Your task to perform on an android device: change notifications settings Image 0: 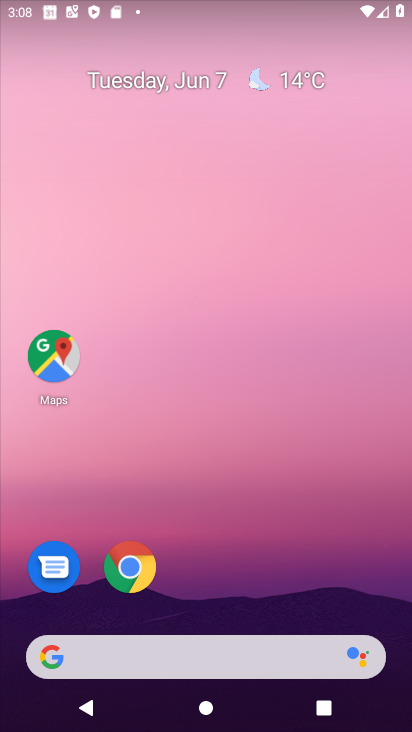
Step 0: drag from (238, 599) to (244, 247)
Your task to perform on an android device: change notifications settings Image 1: 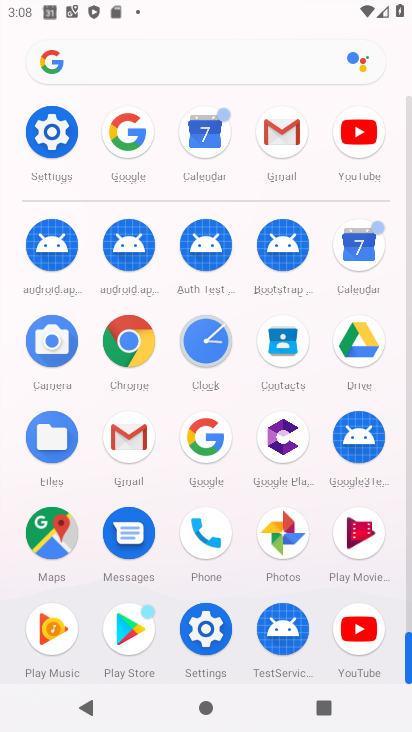
Step 1: click (56, 122)
Your task to perform on an android device: change notifications settings Image 2: 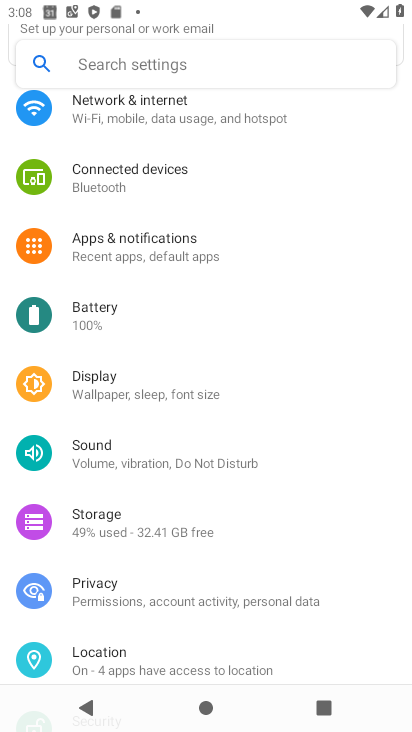
Step 2: click (164, 253)
Your task to perform on an android device: change notifications settings Image 3: 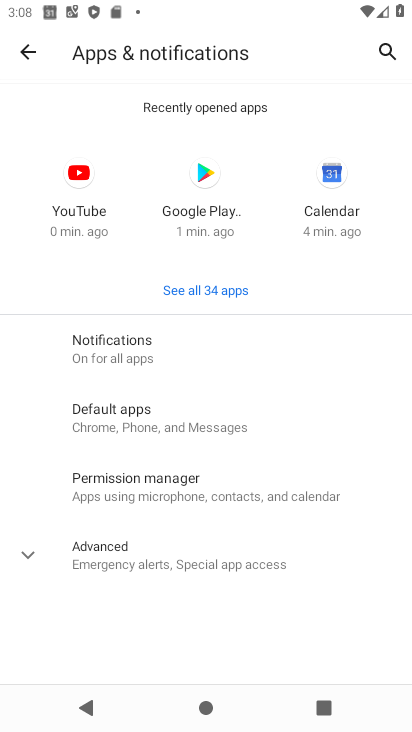
Step 3: click (162, 355)
Your task to perform on an android device: change notifications settings Image 4: 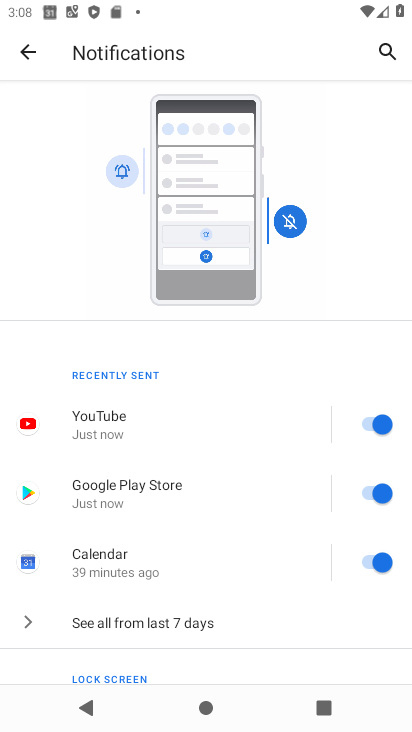
Step 4: drag from (199, 596) to (201, 353)
Your task to perform on an android device: change notifications settings Image 5: 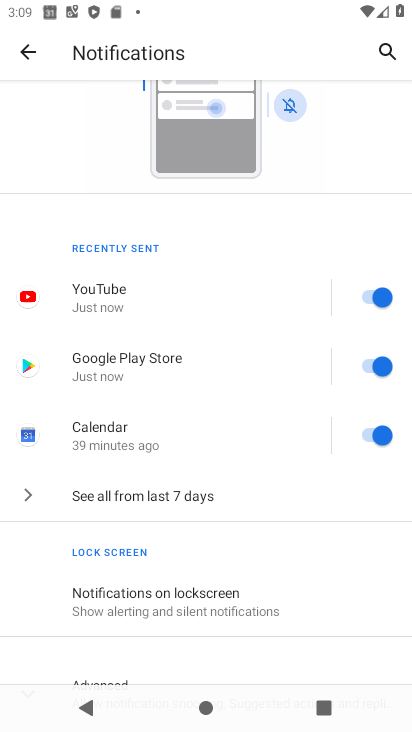
Step 5: drag from (209, 603) to (215, 415)
Your task to perform on an android device: change notifications settings Image 6: 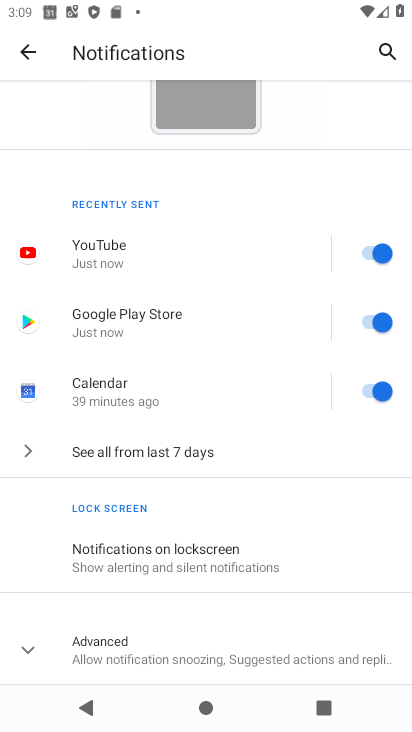
Step 6: drag from (197, 595) to (218, 310)
Your task to perform on an android device: change notifications settings Image 7: 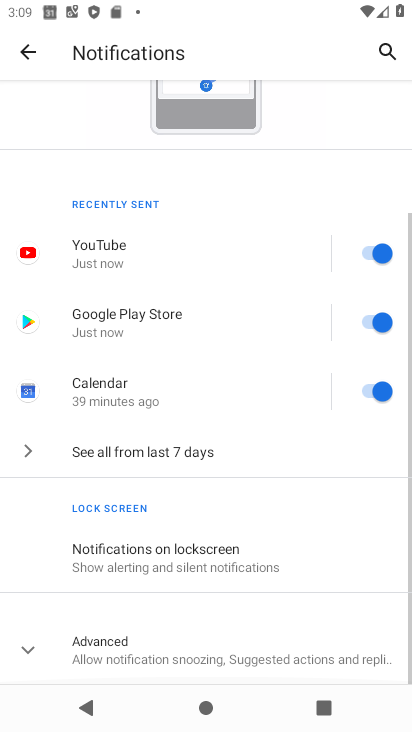
Step 7: click (198, 562)
Your task to perform on an android device: change notifications settings Image 8: 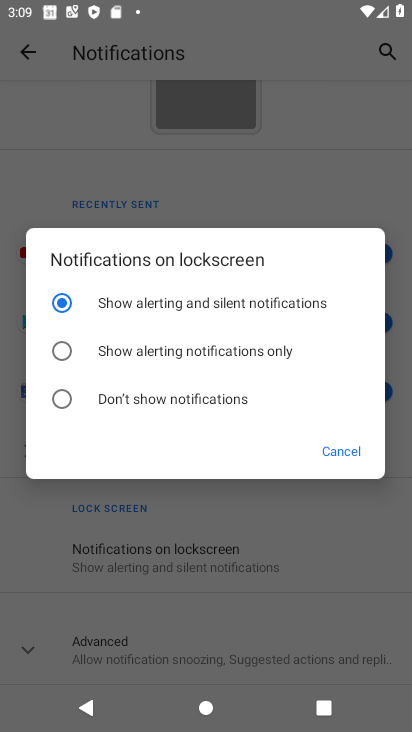
Step 8: click (156, 399)
Your task to perform on an android device: change notifications settings Image 9: 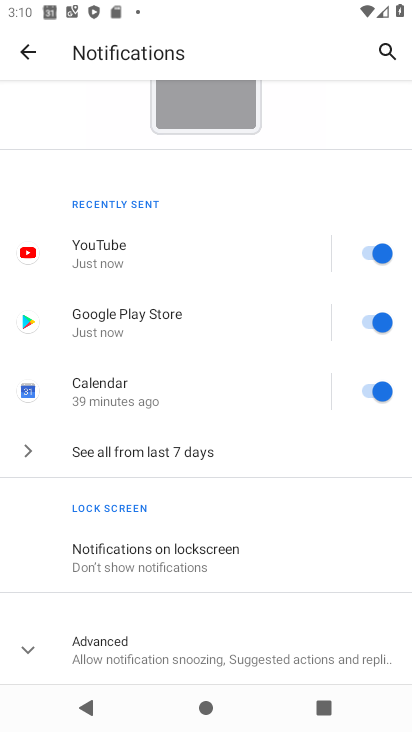
Step 9: task complete